Your task to perform on an android device: move an email to a new category in the gmail app Image 0: 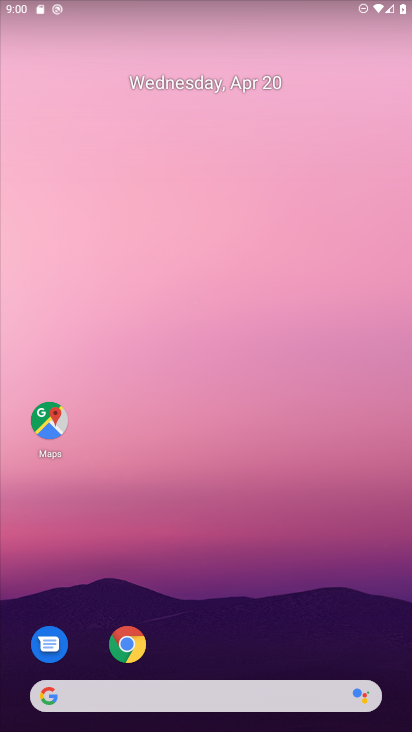
Step 0: drag from (317, 631) to (281, 80)
Your task to perform on an android device: move an email to a new category in the gmail app Image 1: 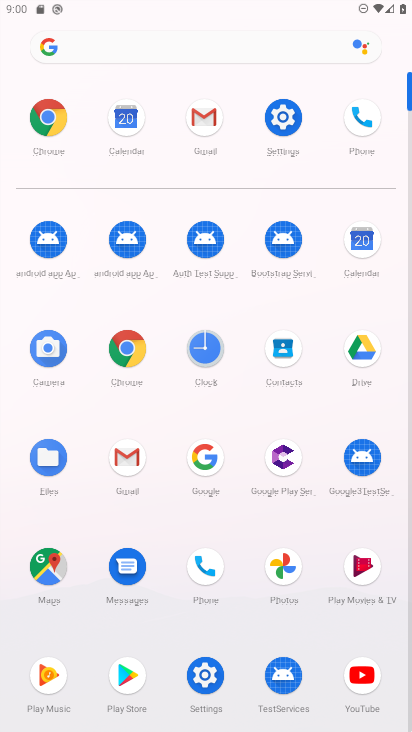
Step 1: click (134, 456)
Your task to perform on an android device: move an email to a new category in the gmail app Image 2: 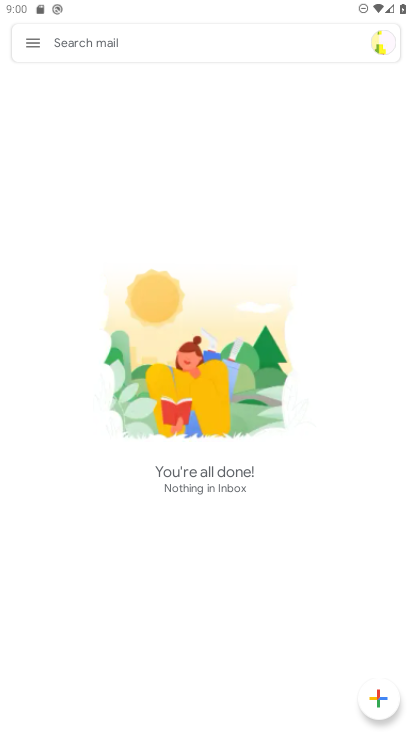
Step 2: click (169, 184)
Your task to perform on an android device: move an email to a new category in the gmail app Image 3: 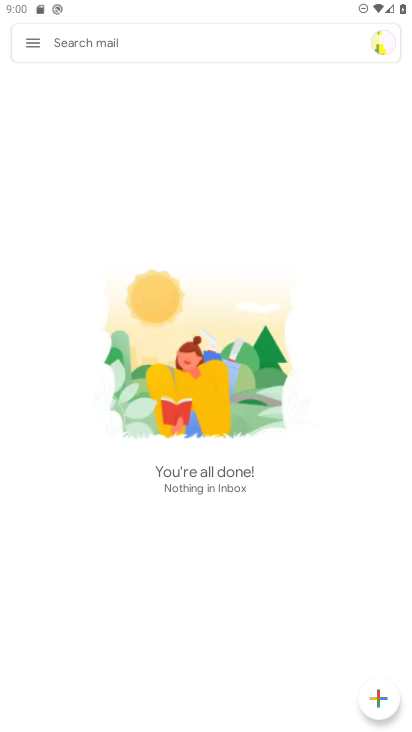
Step 3: task complete